Your task to perform on an android device: turn off improve location accuracy Image 0: 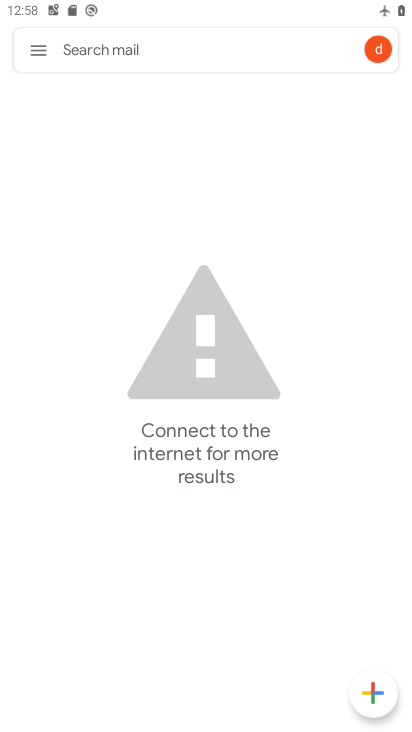
Step 0: press home button
Your task to perform on an android device: turn off improve location accuracy Image 1: 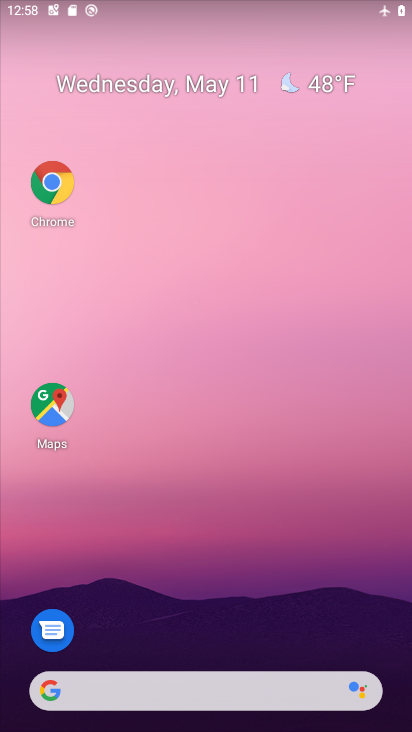
Step 1: drag from (240, 677) to (198, 33)
Your task to perform on an android device: turn off improve location accuracy Image 2: 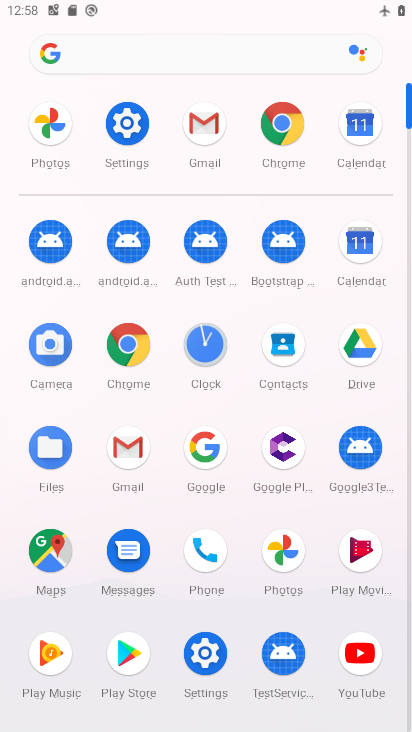
Step 2: click (126, 124)
Your task to perform on an android device: turn off improve location accuracy Image 3: 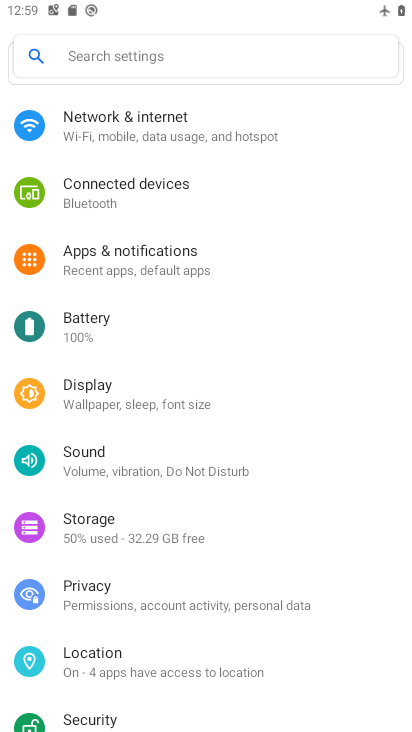
Step 3: click (126, 647)
Your task to perform on an android device: turn off improve location accuracy Image 4: 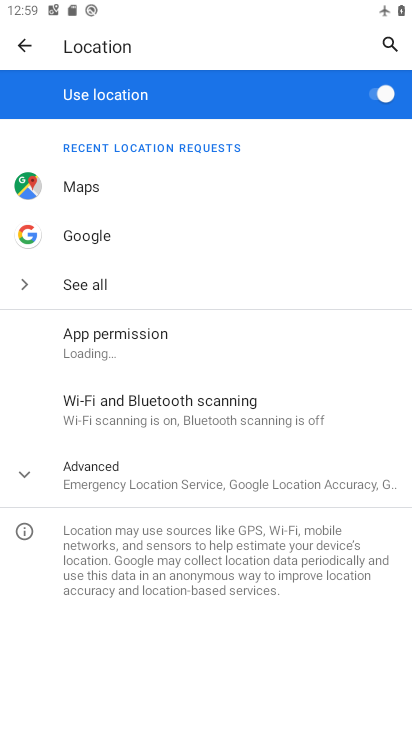
Step 4: click (130, 459)
Your task to perform on an android device: turn off improve location accuracy Image 5: 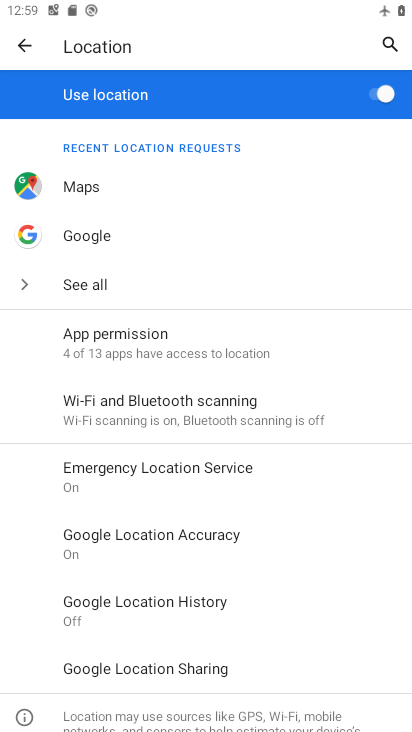
Step 5: click (167, 533)
Your task to perform on an android device: turn off improve location accuracy Image 6: 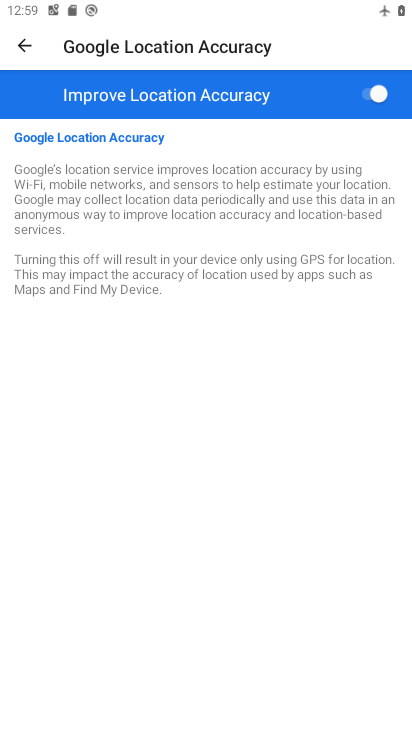
Step 6: click (347, 94)
Your task to perform on an android device: turn off improve location accuracy Image 7: 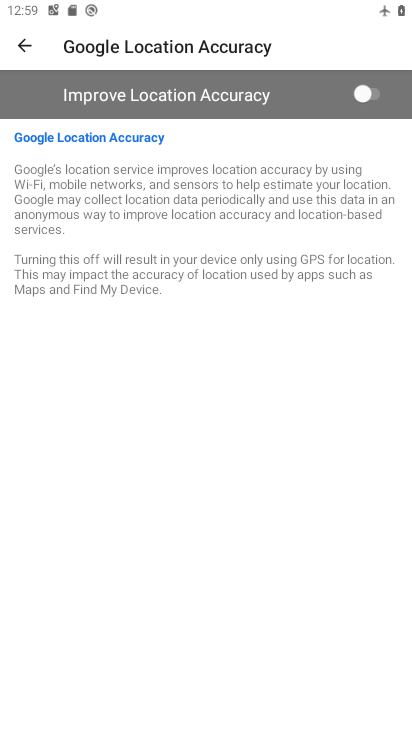
Step 7: task complete